Your task to perform on an android device: Toggle the flashlight Image 0: 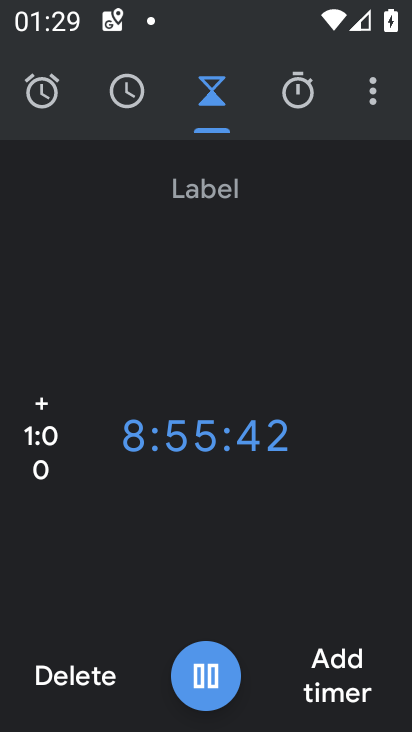
Step 0: press home button
Your task to perform on an android device: Toggle the flashlight Image 1: 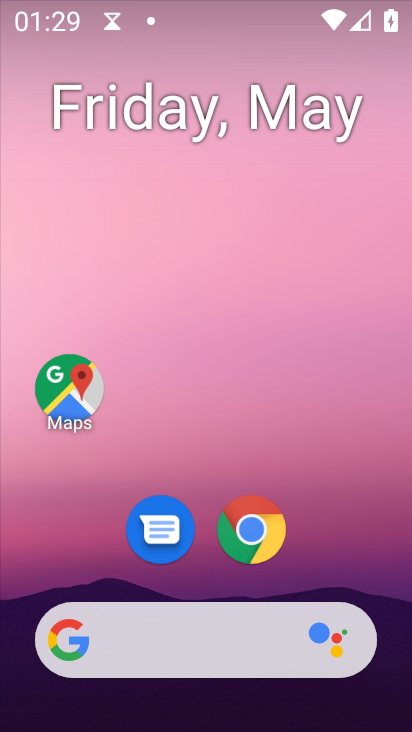
Step 1: drag from (311, 455) to (313, 236)
Your task to perform on an android device: Toggle the flashlight Image 2: 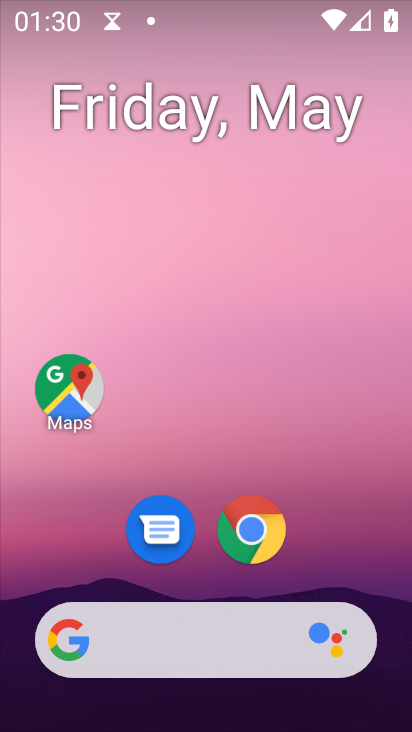
Step 2: drag from (312, 341) to (312, 170)
Your task to perform on an android device: Toggle the flashlight Image 3: 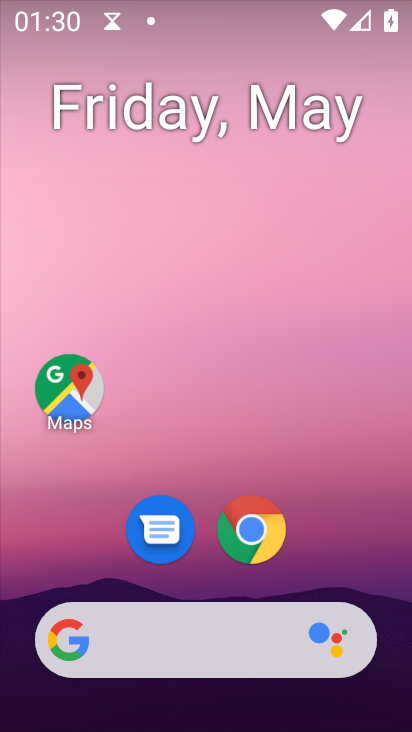
Step 3: drag from (230, 554) to (257, 166)
Your task to perform on an android device: Toggle the flashlight Image 4: 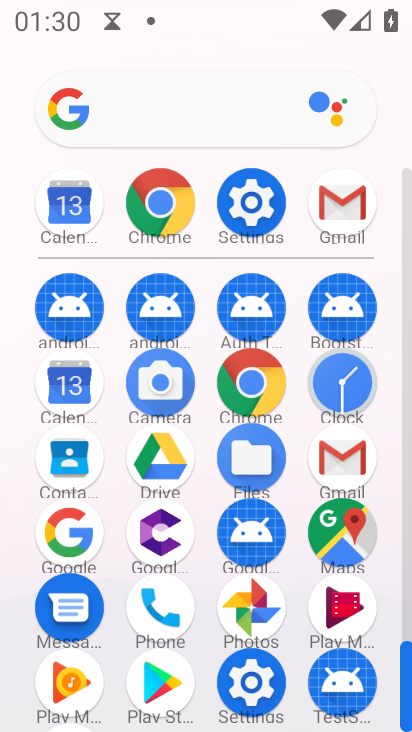
Step 4: click (254, 202)
Your task to perform on an android device: Toggle the flashlight Image 5: 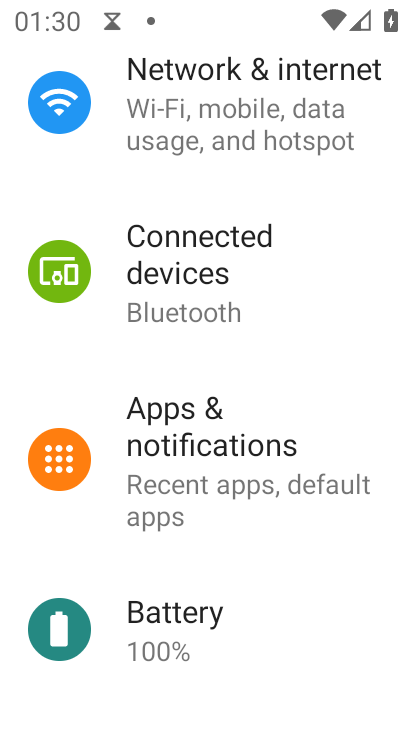
Step 5: task complete